Your task to perform on an android device: Go to Android settings Image 0: 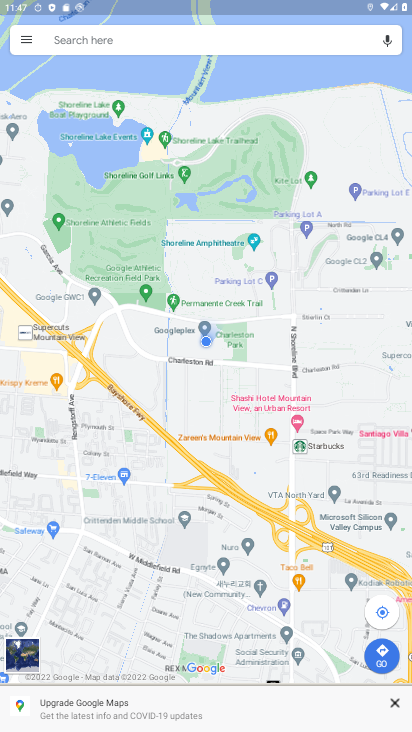
Step 0: press home button
Your task to perform on an android device: Go to Android settings Image 1: 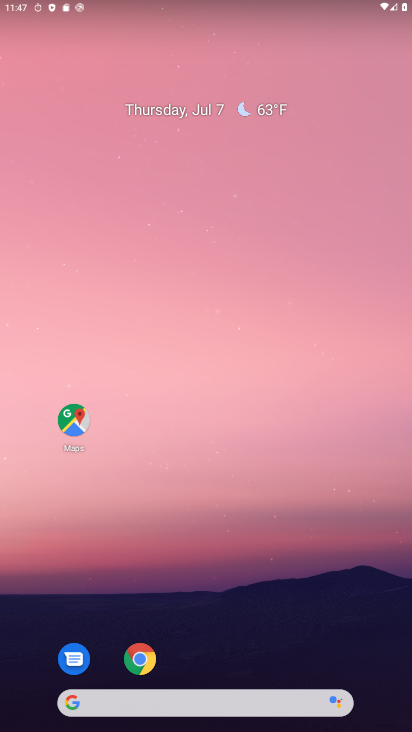
Step 1: drag from (203, 672) to (325, 7)
Your task to perform on an android device: Go to Android settings Image 2: 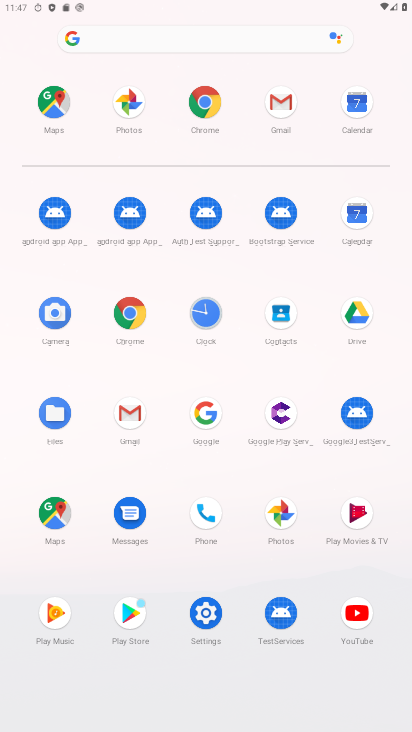
Step 2: click (205, 622)
Your task to perform on an android device: Go to Android settings Image 3: 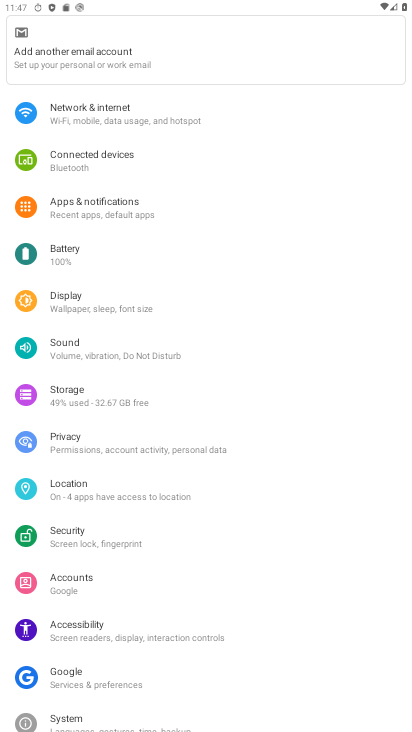
Step 3: drag from (115, 667) to (154, 356)
Your task to perform on an android device: Go to Android settings Image 4: 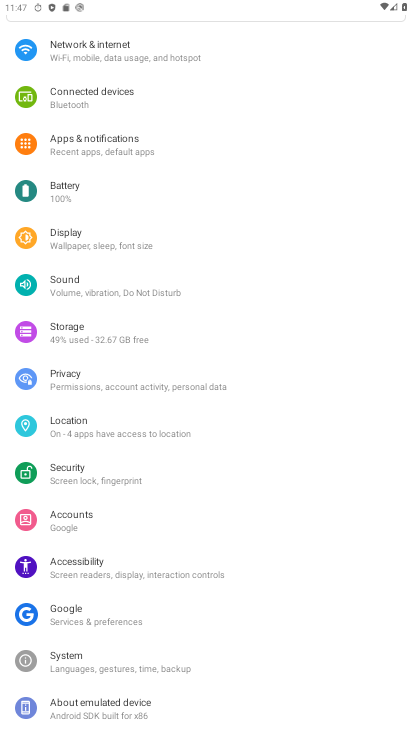
Step 4: click (93, 709)
Your task to perform on an android device: Go to Android settings Image 5: 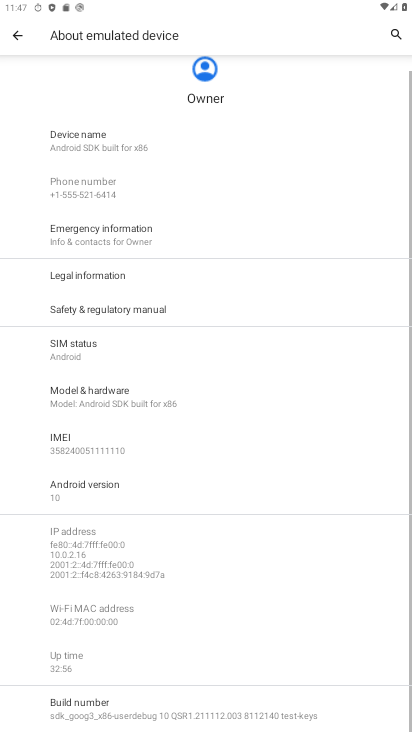
Step 5: click (95, 483)
Your task to perform on an android device: Go to Android settings Image 6: 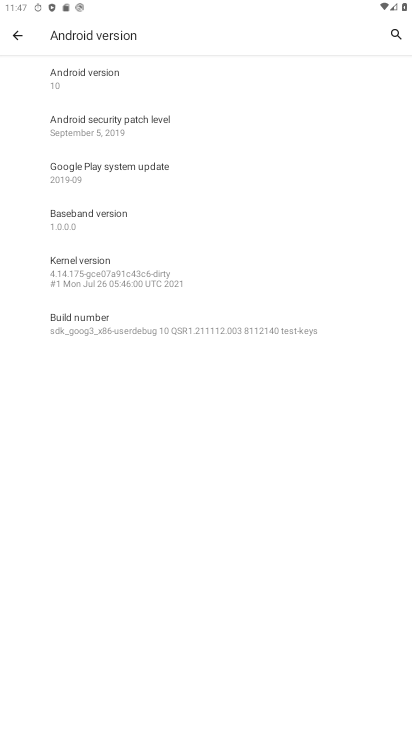
Step 6: task complete